Your task to perform on an android device: delete a single message in the gmail app Image 0: 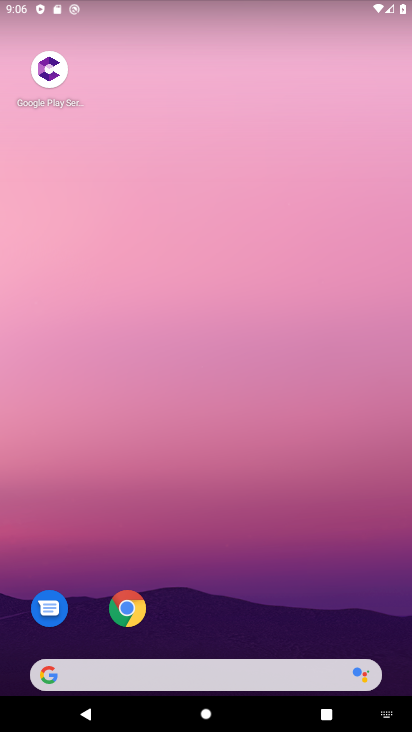
Step 0: drag from (322, 588) to (292, 1)
Your task to perform on an android device: delete a single message in the gmail app Image 1: 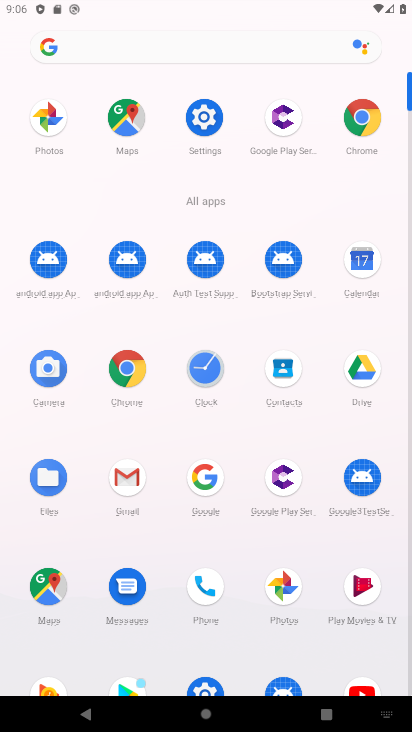
Step 1: click (131, 482)
Your task to perform on an android device: delete a single message in the gmail app Image 2: 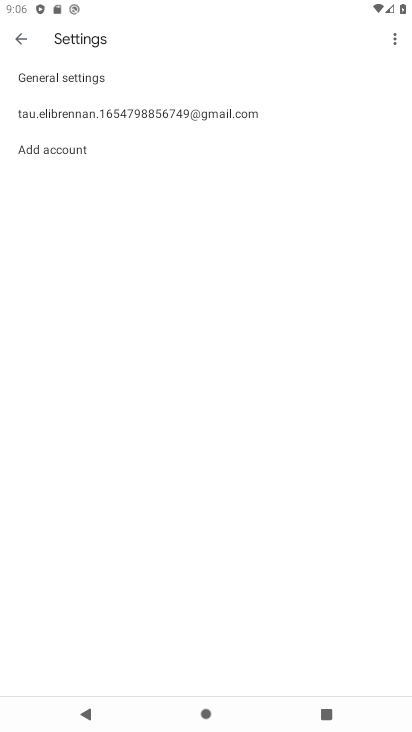
Step 2: click (60, 114)
Your task to perform on an android device: delete a single message in the gmail app Image 3: 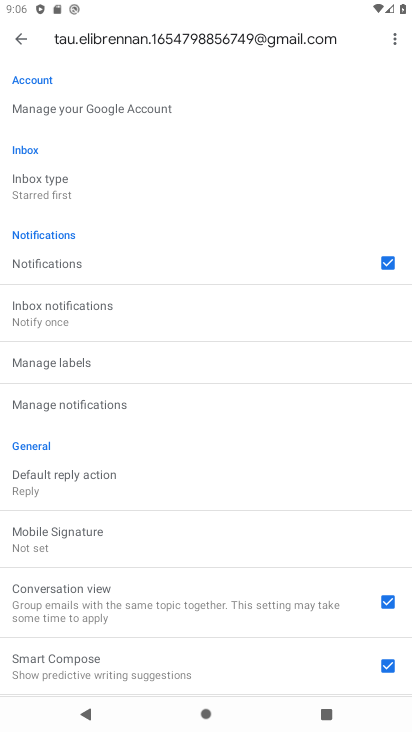
Step 3: click (0, 31)
Your task to perform on an android device: delete a single message in the gmail app Image 4: 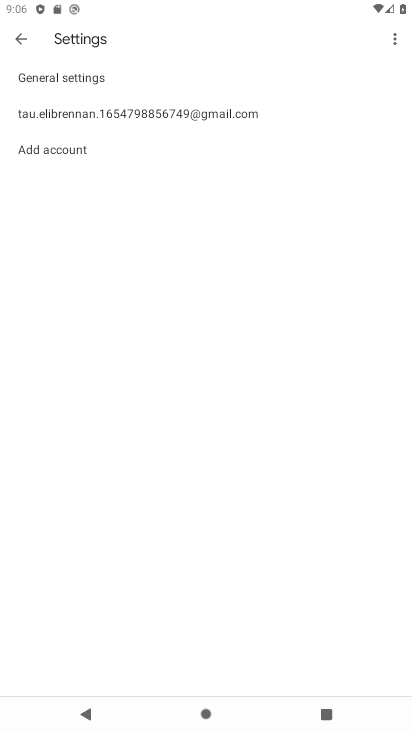
Step 4: click (12, 39)
Your task to perform on an android device: delete a single message in the gmail app Image 5: 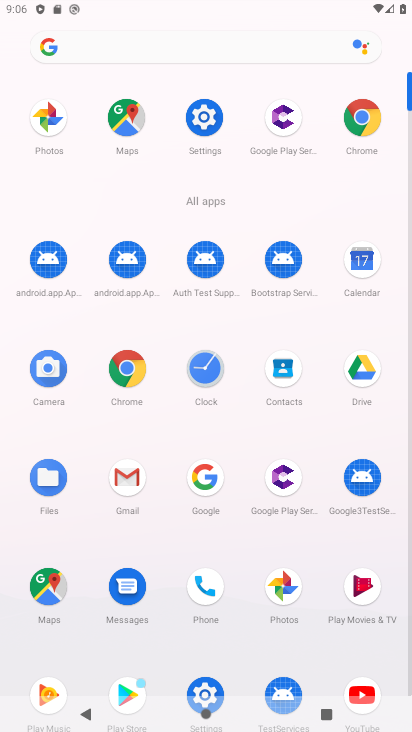
Step 5: click (132, 469)
Your task to perform on an android device: delete a single message in the gmail app Image 6: 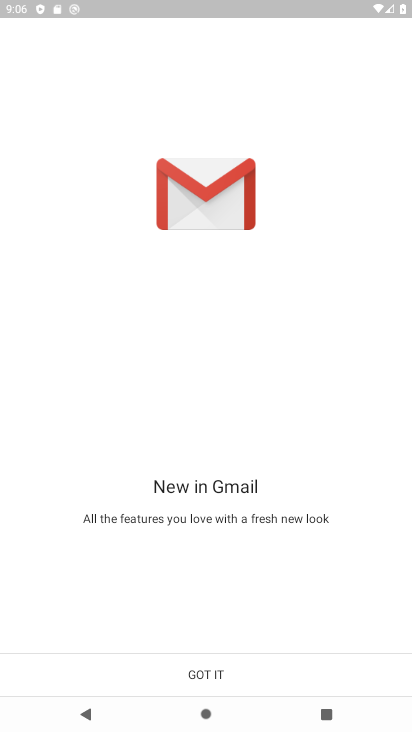
Step 6: click (206, 657)
Your task to perform on an android device: delete a single message in the gmail app Image 7: 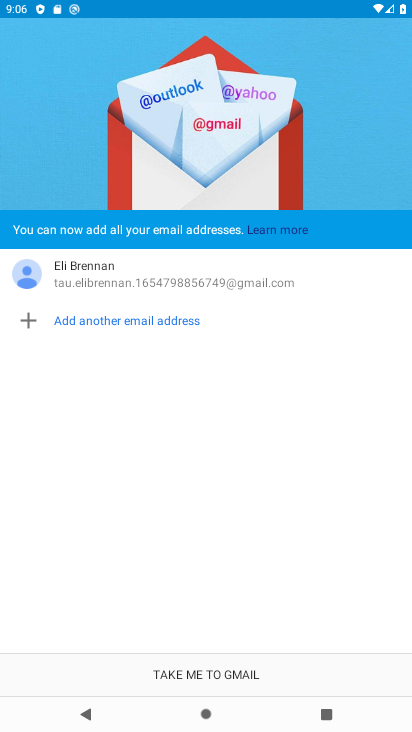
Step 7: click (216, 665)
Your task to perform on an android device: delete a single message in the gmail app Image 8: 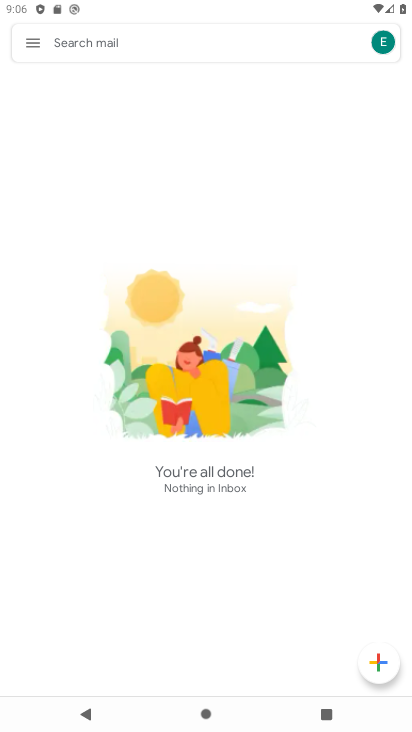
Step 8: task complete